Your task to perform on an android device: turn off translation in the chrome app Image 0: 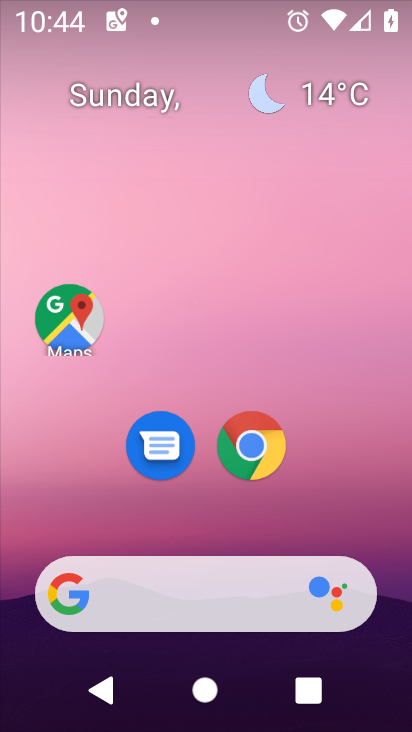
Step 0: click (255, 42)
Your task to perform on an android device: turn off translation in the chrome app Image 1: 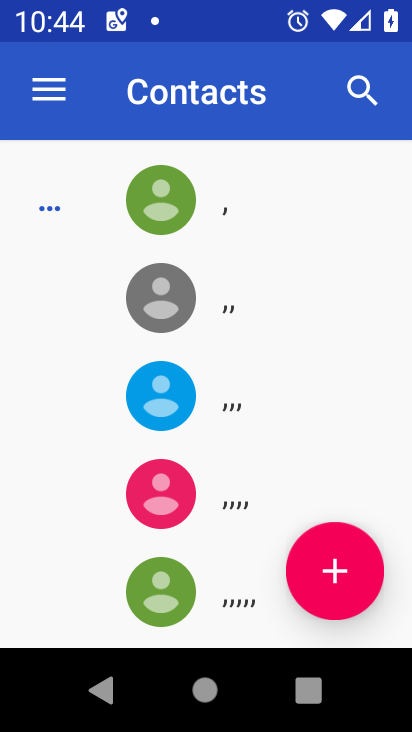
Step 1: press home button
Your task to perform on an android device: turn off translation in the chrome app Image 2: 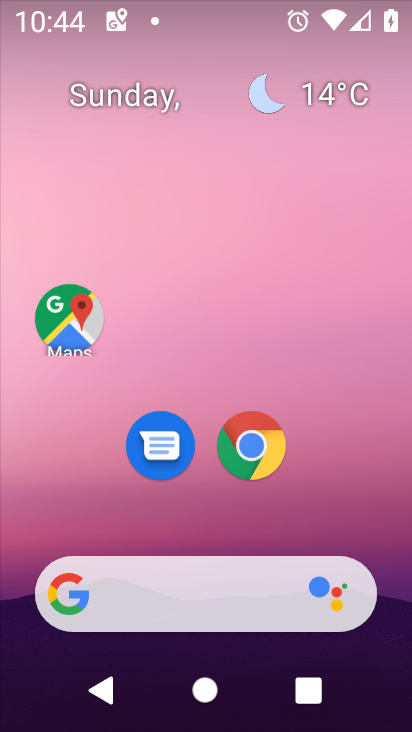
Step 2: drag from (209, 522) to (257, 19)
Your task to perform on an android device: turn off translation in the chrome app Image 3: 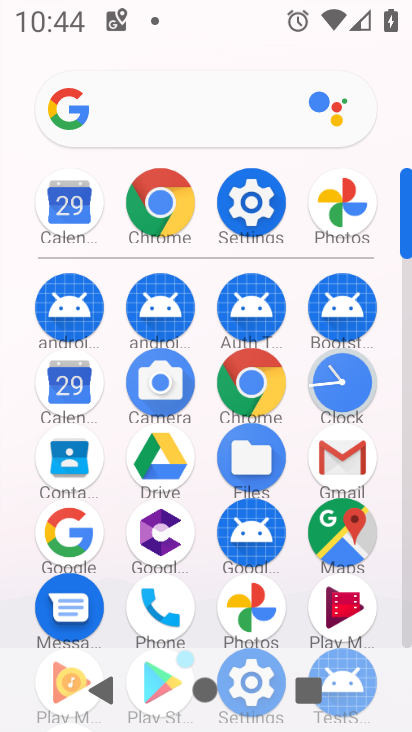
Step 3: click (247, 375)
Your task to perform on an android device: turn off translation in the chrome app Image 4: 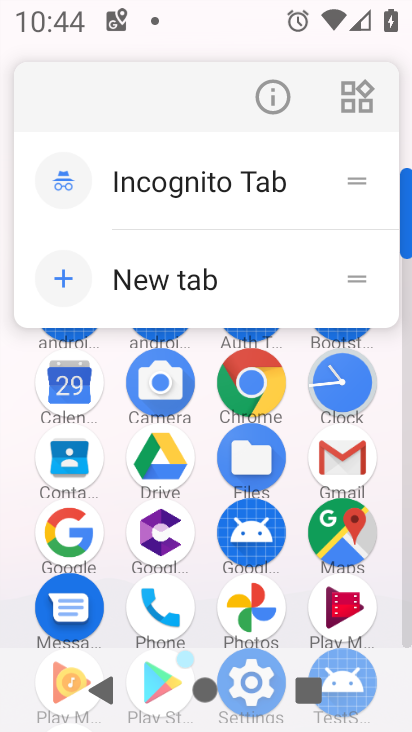
Step 4: click (278, 90)
Your task to perform on an android device: turn off translation in the chrome app Image 5: 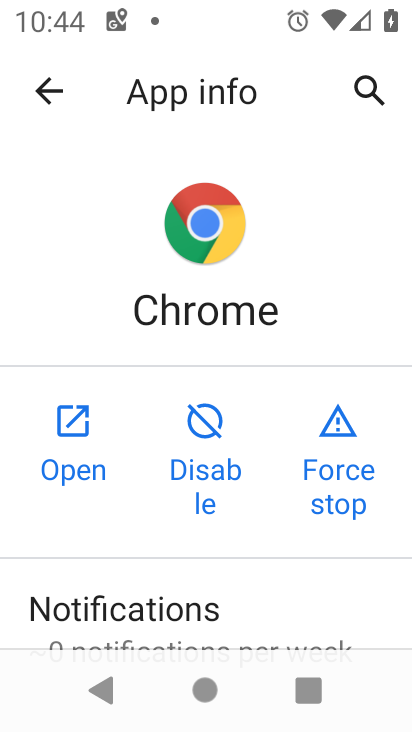
Step 5: click (63, 429)
Your task to perform on an android device: turn off translation in the chrome app Image 6: 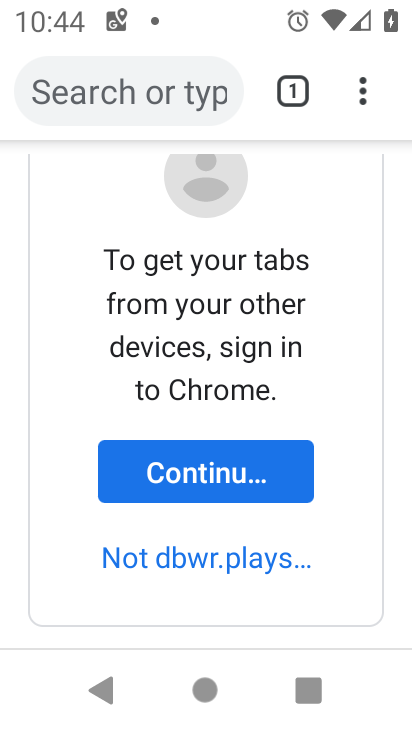
Step 6: drag from (212, 586) to (262, 31)
Your task to perform on an android device: turn off translation in the chrome app Image 7: 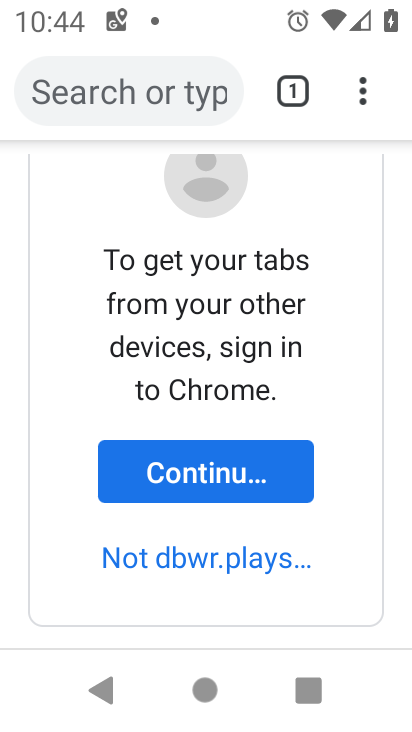
Step 7: drag from (204, 602) to (292, 303)
Your task to perform on an android device: turn off translation in the chrome app Image 8: 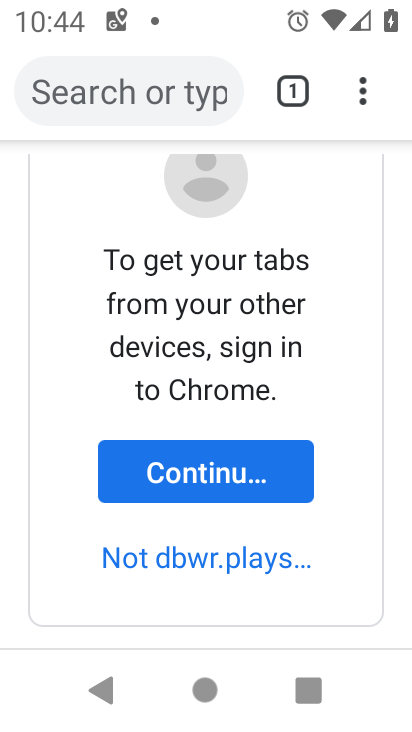
Step 8: drag from (240, 220) to (264, 696)
Your task to perform on an android device: turn off translation in the chrome app Image 9: 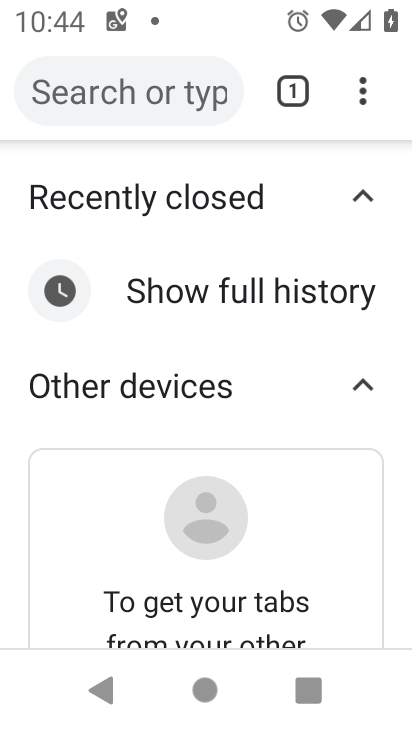
Step 9: drag from (368, 84) to (185, 469)
Your task to perform on an android device: turn off translation in the chrome app Image 10: 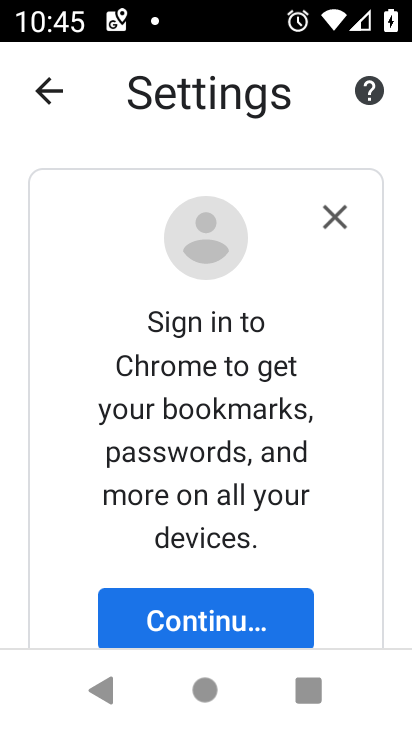
Step 10: drag from (239, 547) to (259, 160)
Your task to perform on an android device: turn off translation in the chrome app Image 11: 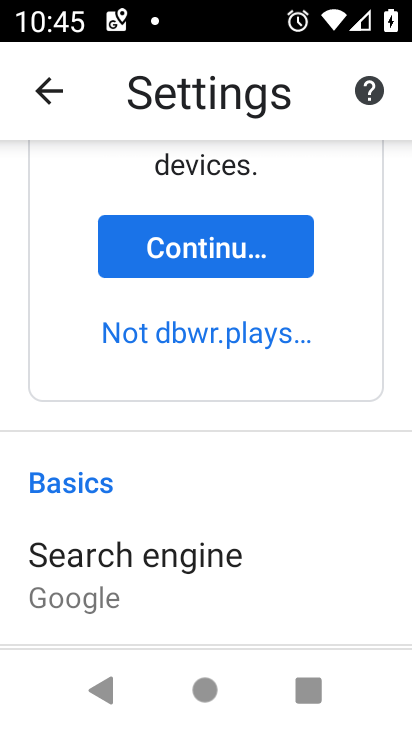
Step 11: drag from (234, 567) to (330, 190)
Your task to perform on an android device: turn off translation in the chrome app Image 12: 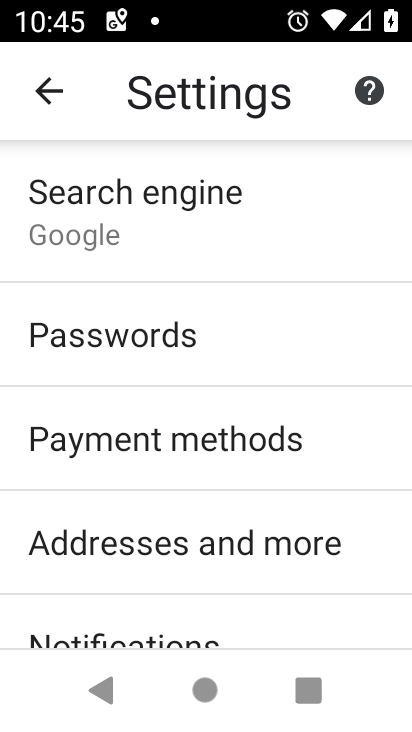
Step 12: drag from (253, 553) to (278, 150)
Your task to perform on an android device: turn off translation in the chrome app Image 13: 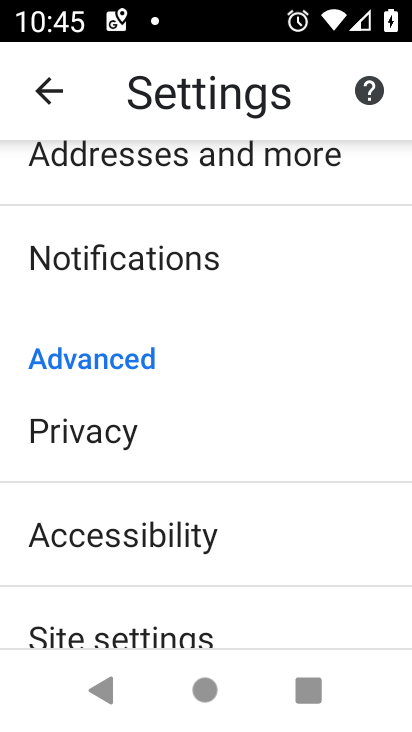
Step 13: drag from (225, 535) to (271, 191)
Your task to perform on an android device: turn off translation in the chrome app Image 14: 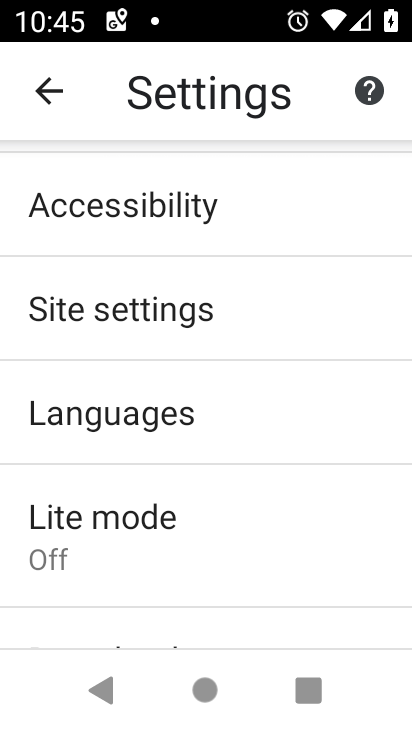
Step 14: click (170, 411)
Your task to perform on an android device: turn off translation in the chrome app Image 15: 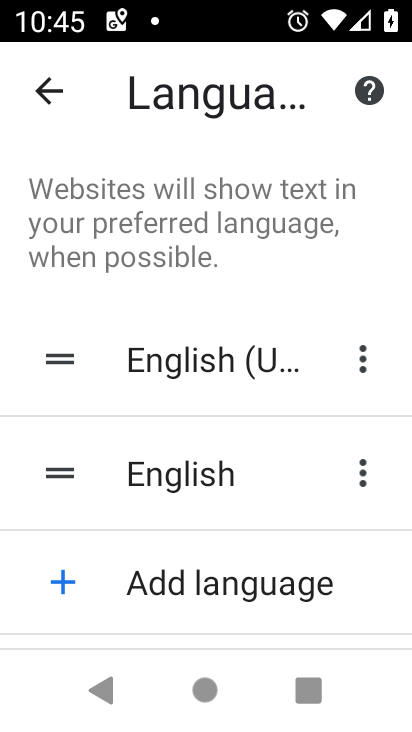
Step 15: task complete